Your task to perform on an android device: turn pop-ups off in chrome Image 0: 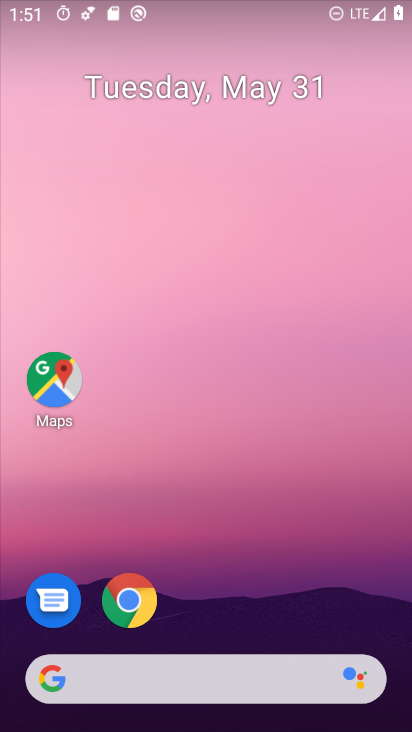
Step 0: click (136, 598)
Your task to perform on an android device: turn pop-ups off in chrome Image 1: 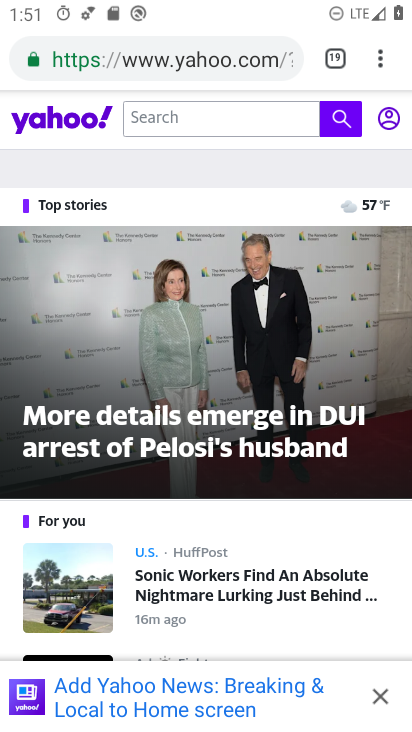
Step 1: click (380, 63)
Your task to perform on an android device: turn pop-ups off in chrome Image 2: 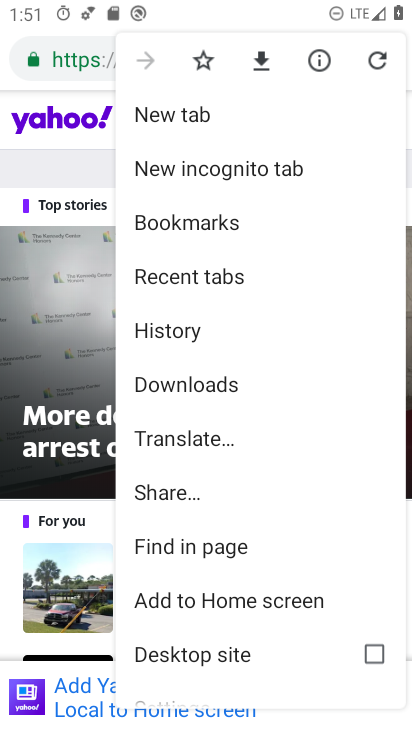
Step 2: drag from (239, 653) to (252, 330)
Your task to perform on an android device: turn pop-ups off in chrome Image 3: 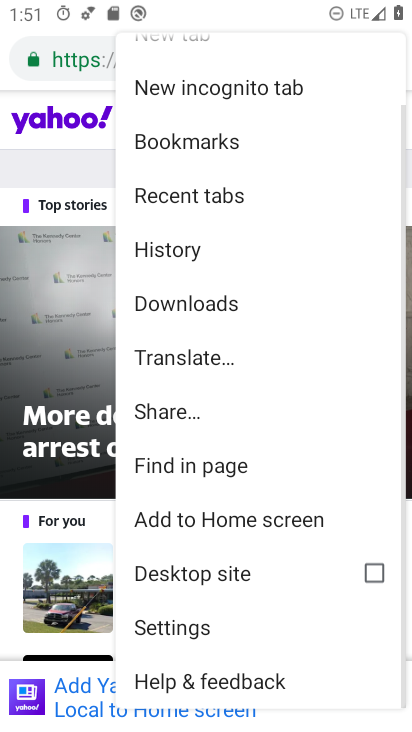
Step 3: click (166, 620)
Your task to perform on an android device: turn pop-ups off in chrome Image 4: 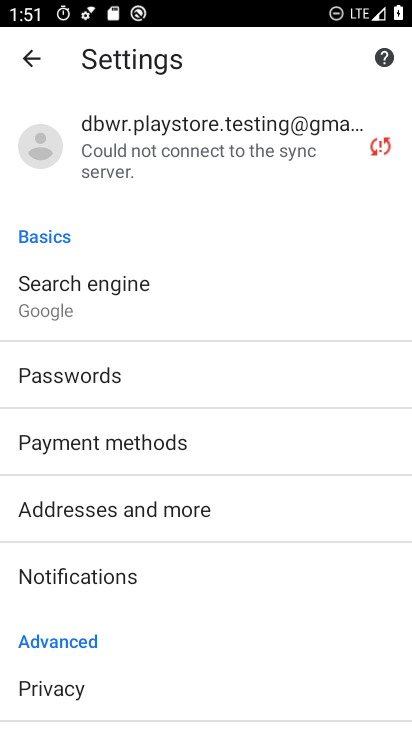
Step 4: drag from (109, 719) to (137, 363)
Your task to perform on an android device: turn pop-ups off in chrome Image 5: 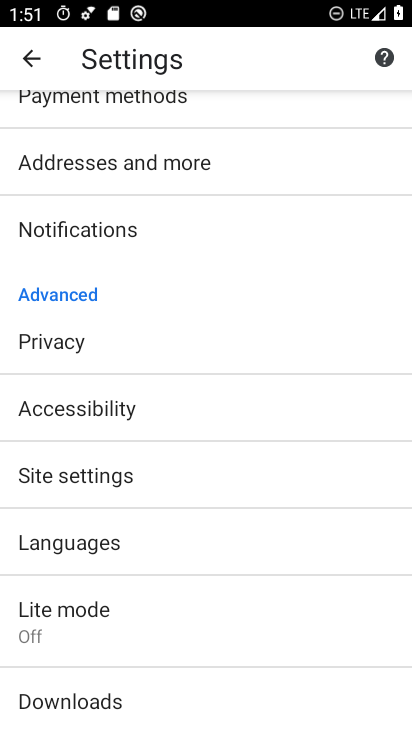
Step 5: click (102, 476)
Your task to perform on an android device: turn pop-ups off in chrome Image 6: 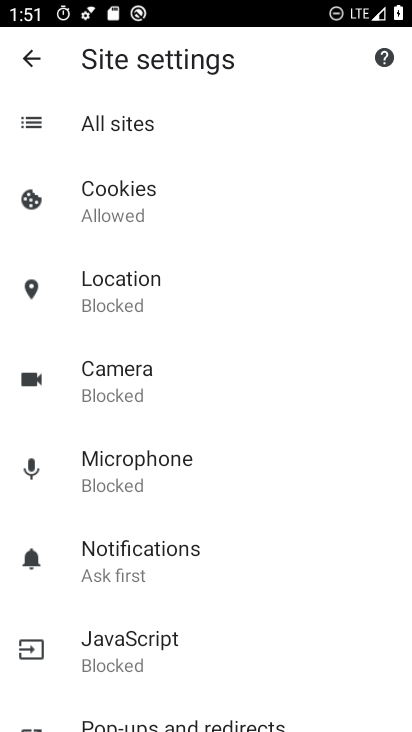
Step 6: click (204, 721)
Your task to perform on an android device: turn pop-ups off in chrome Image 7: 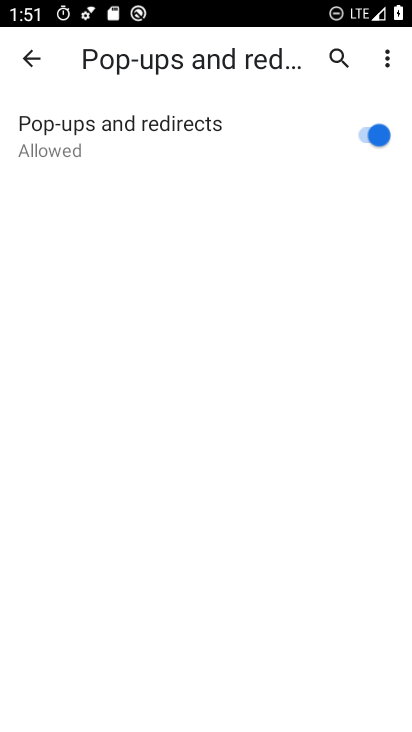
Step 7: click (363, 132)
Your task to perform on an android device: turn pop-ups off in chrome Image 8: 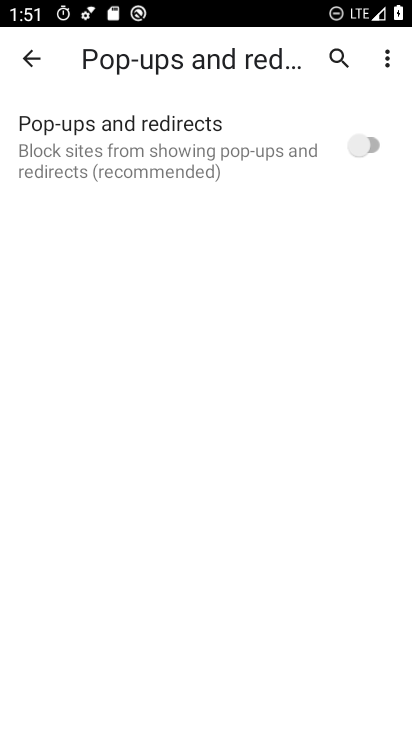
Step 8: task complete